Your task to perform on an android device: Check the news Image 0: 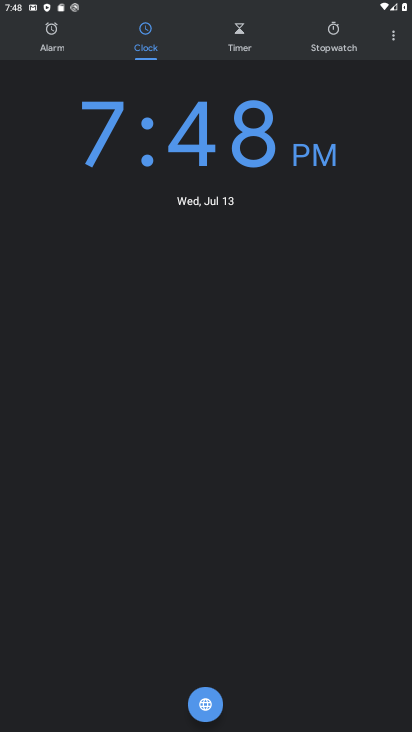
Step 0: press home button
Your task to perform on an android device: Check the news Image 1: 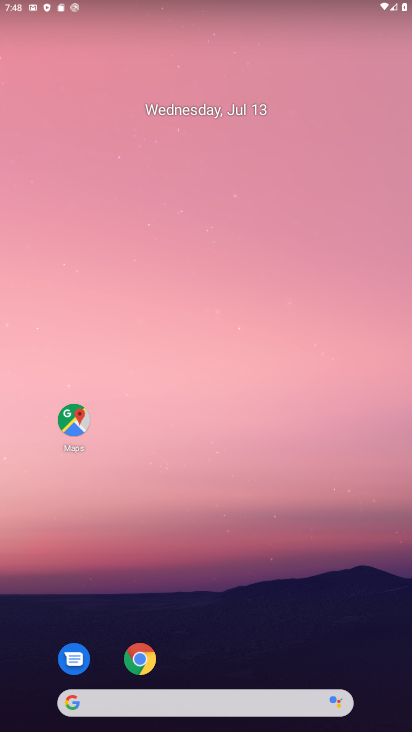
Step 1: drag from (204, 647) to (255, 197)
Your task to perform on an android device: Check the news Image 2: 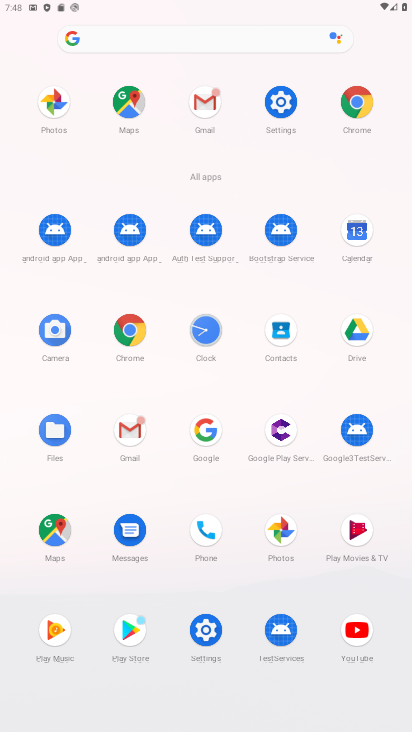
Step 2: click (206, 424)
Your task to perform on an android device: Check the news Image 3: 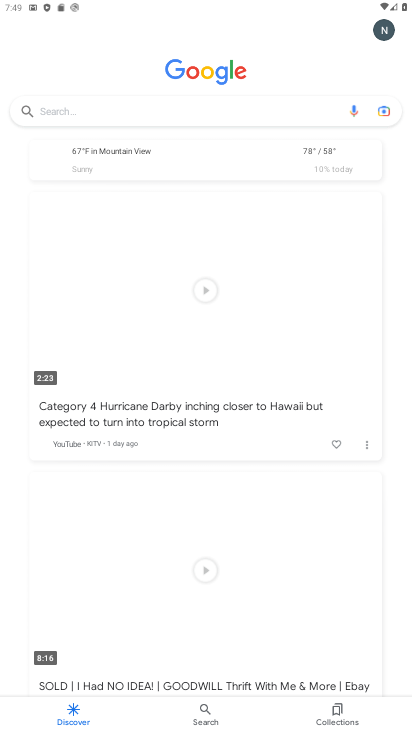
Step 3: click (170, 114)
Your task to perform on an android device: Check the news Image 4: 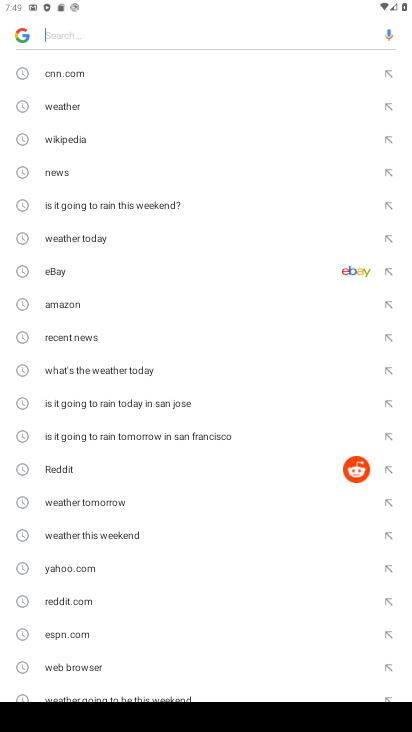
Step 4: click (71, 171)
Your task to perform on an android device: Check the news Image 5: 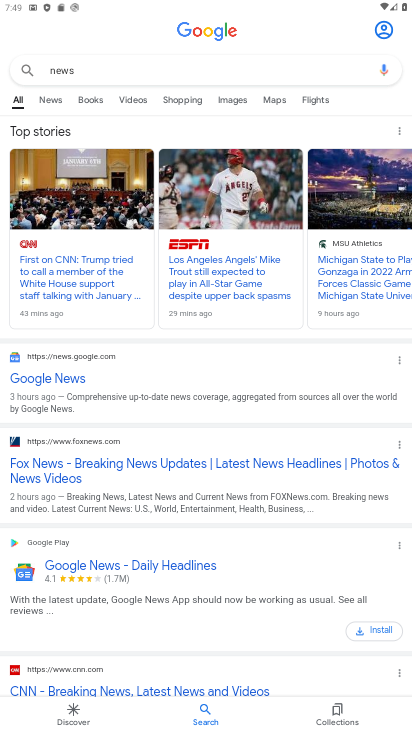
Step 5: click (57, 96)
Your task to perform on an android device: Check the news Image 6: 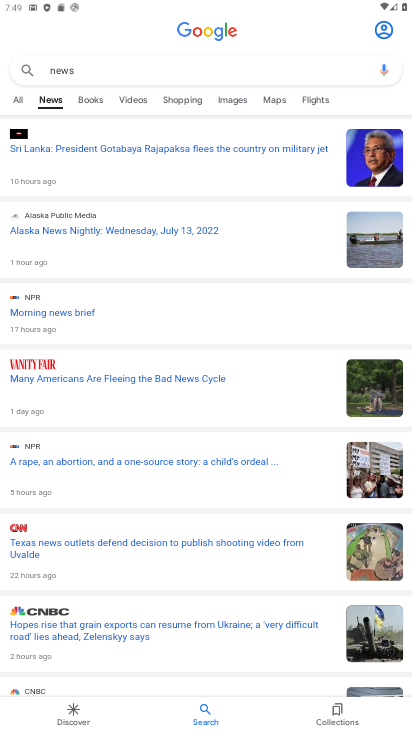
Step 6: task complete